Your task to perform on an android device: uninstall "Move to iOS" Image 0: 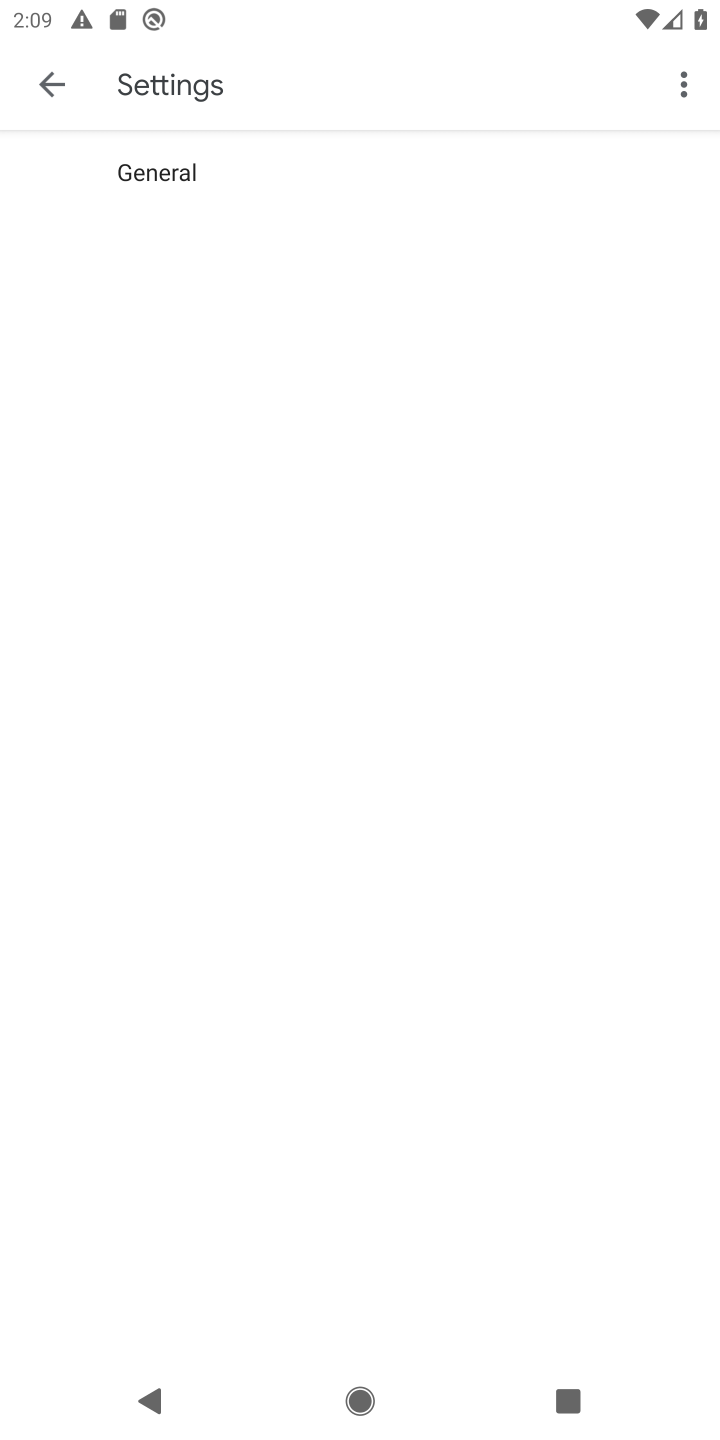
Step 0: press home button
Your task to perform on an android device: uninstall "Move to iOS" Image 1: 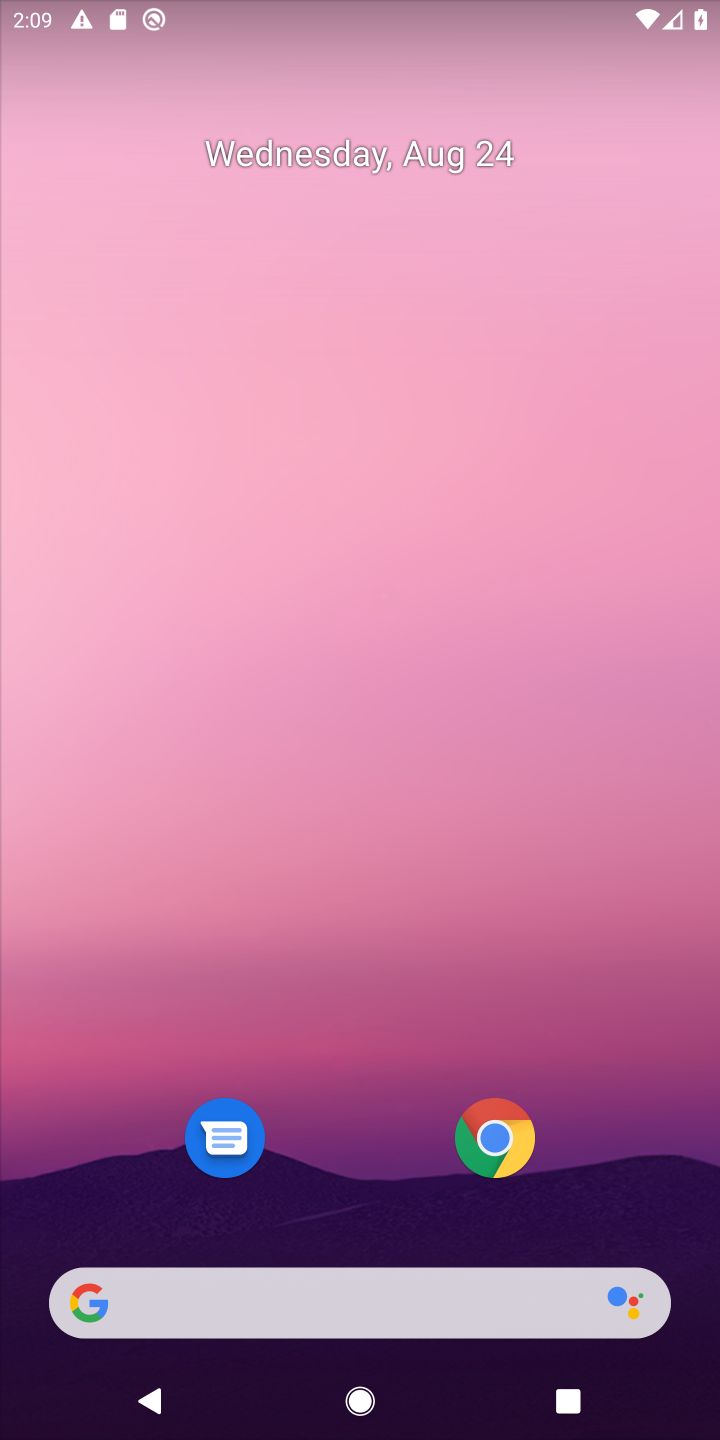
Step 1: drag from (376, 1253) to (446, 377)
Your task to perform on an android device: uninstall "Move to iOS" Image 2: 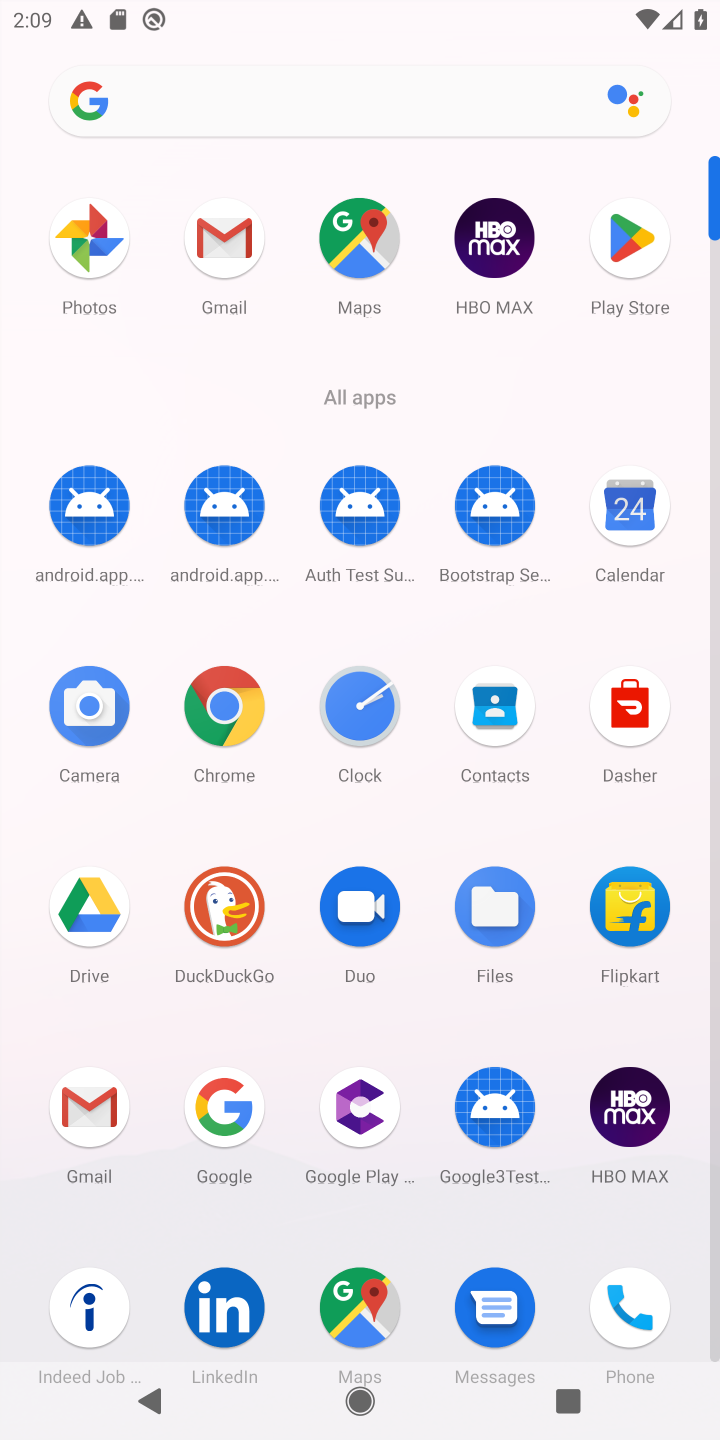
Step 2: click (636, 229)
Your task to perform on an android device: uninstall "Move to iOS" Image 3: 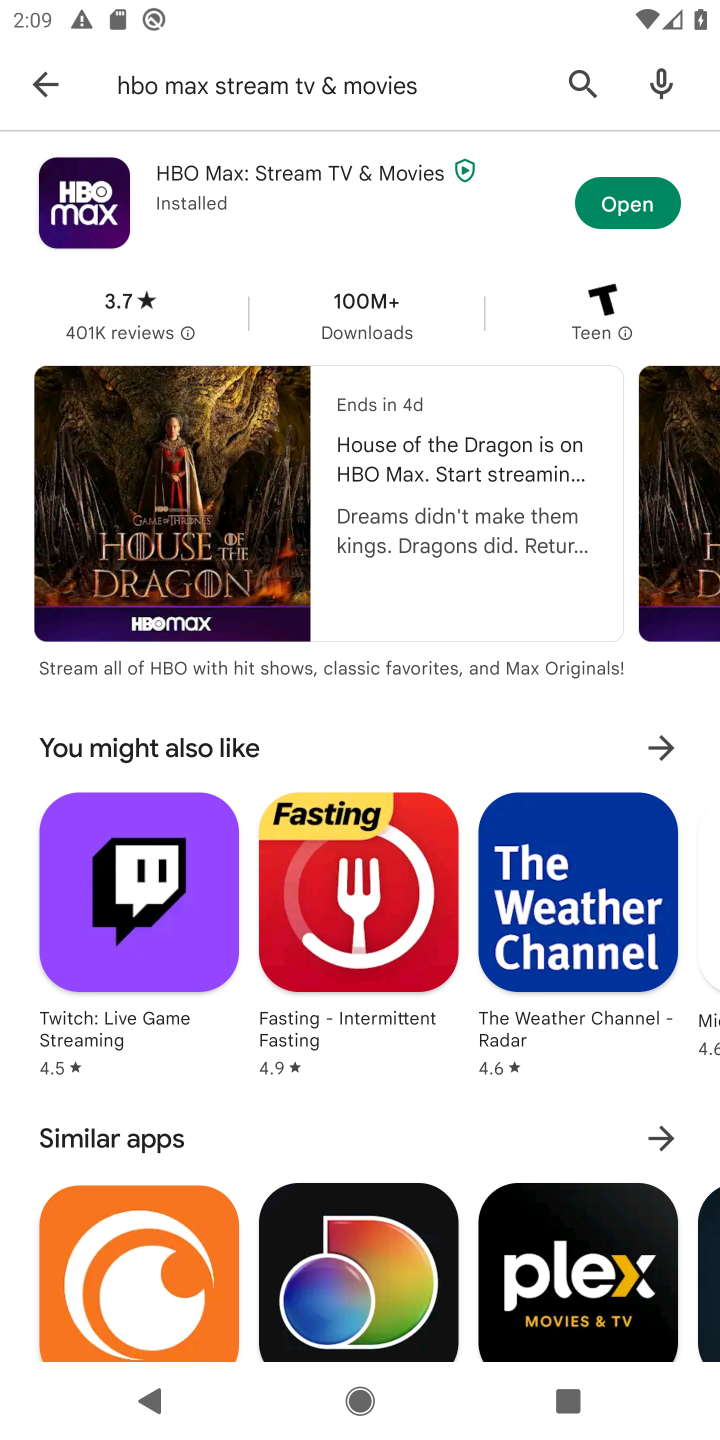
Step 3: click (576, 77)
Your task to perform on an android device: uninstall "Move to iOS" Image 4: 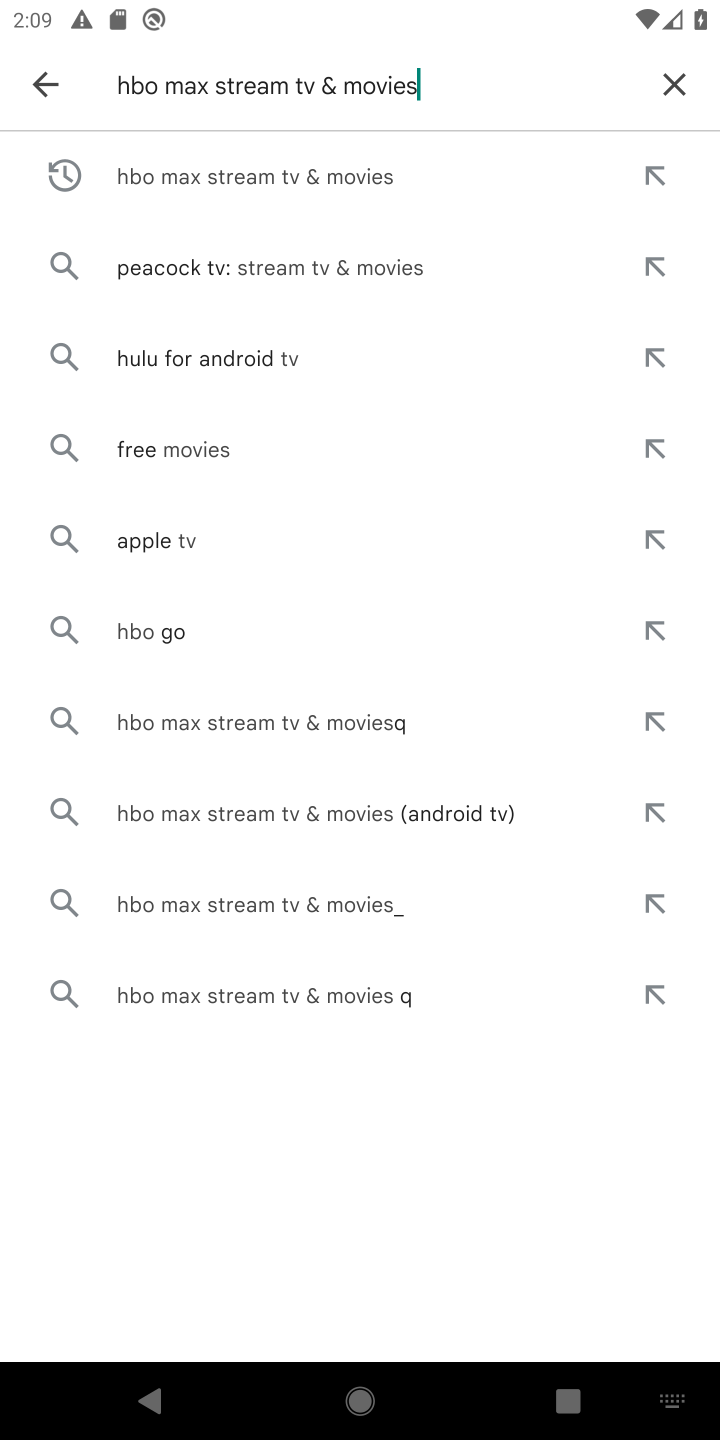
Step 4: click (660, 79)
Your task to perform on an android device: uninstall "Move to iOS" Image 5: 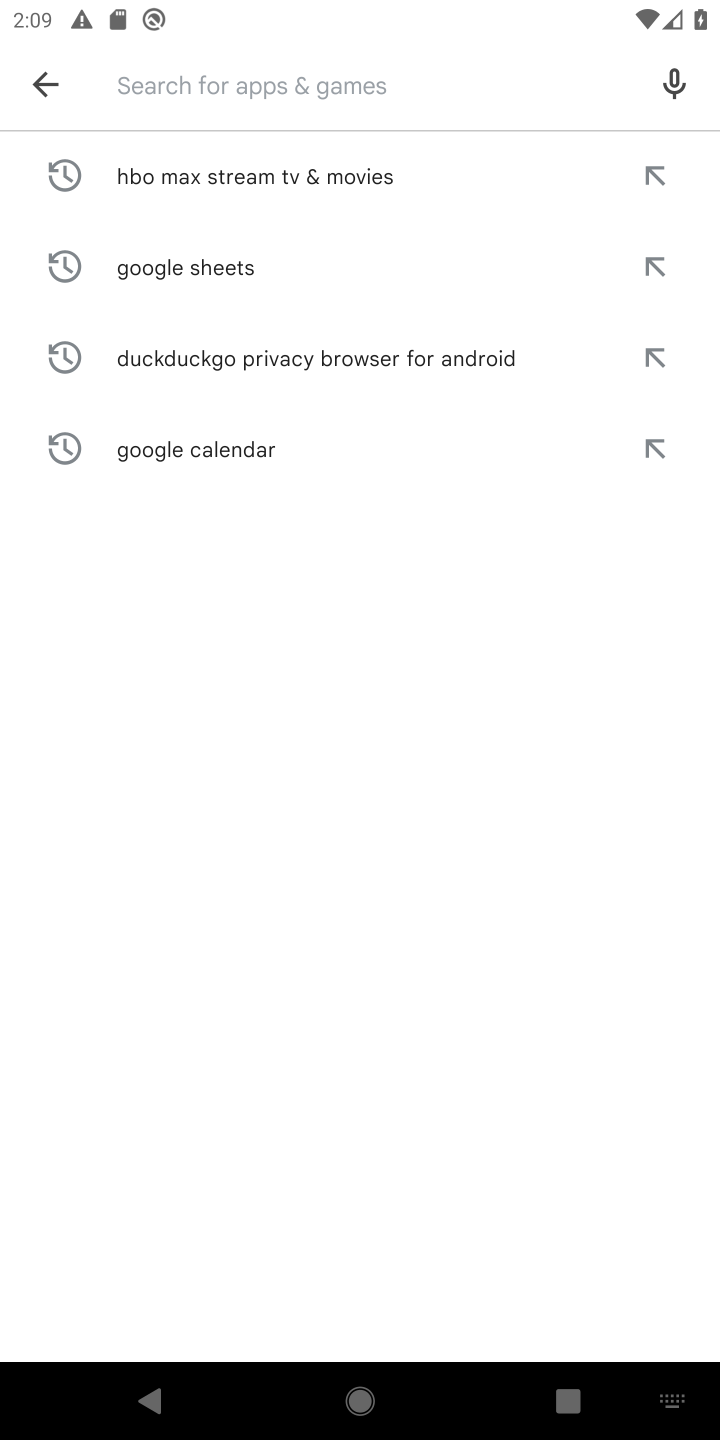
Step 5: type "Move to iOS"
Your task to perform on an android device: uninstall "Move to iOS" Image 6: 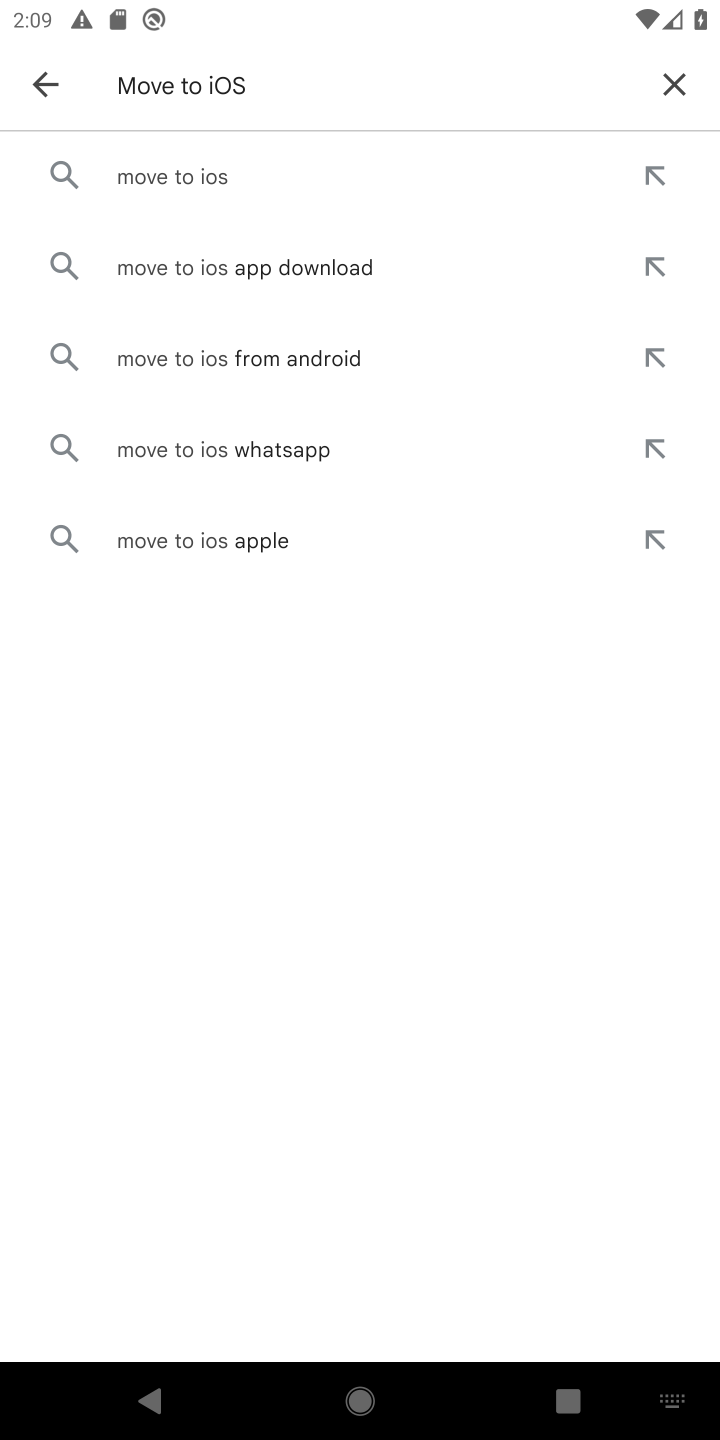
Step 6: click (197, 187)
Your task to perform on an android device: uninstall "Move to iOS" Image 7: 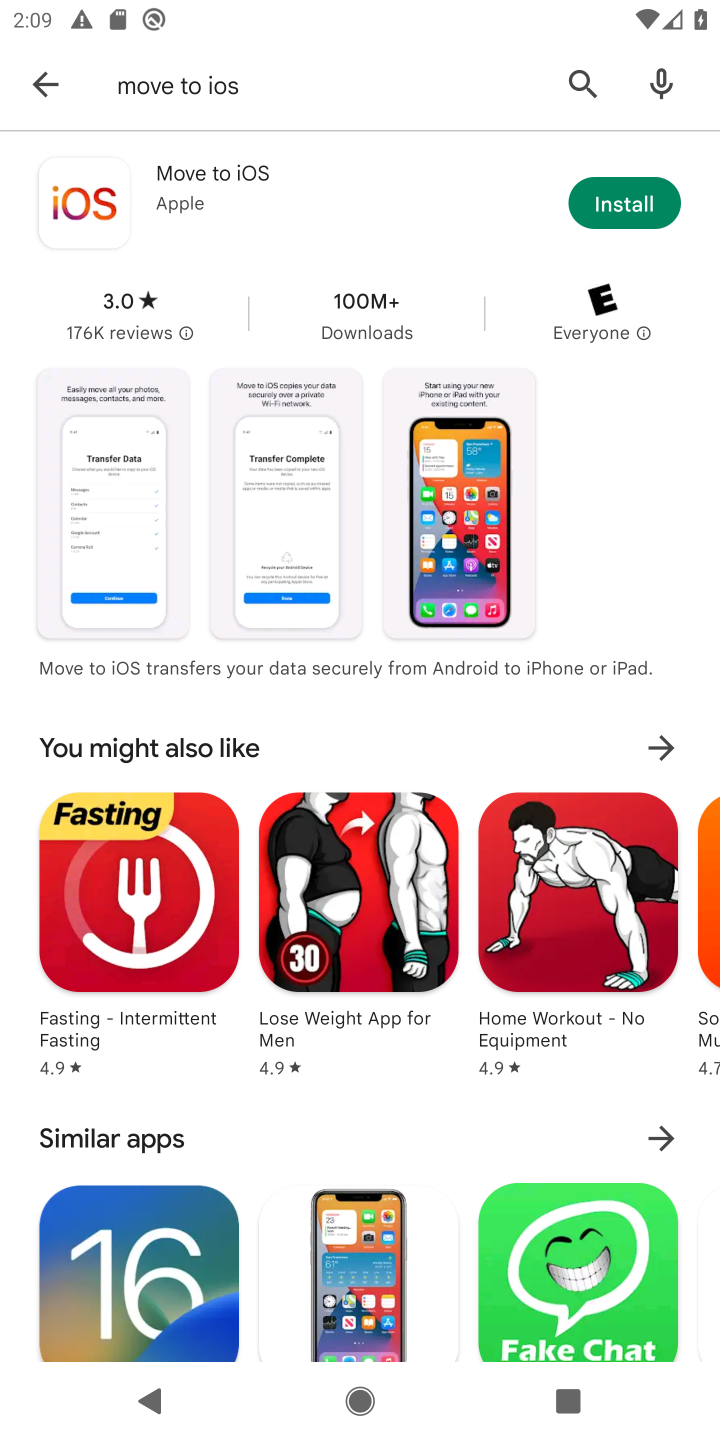
Step 7: task complete